Your task to perform on an android device: Go to Amazon Image 0: 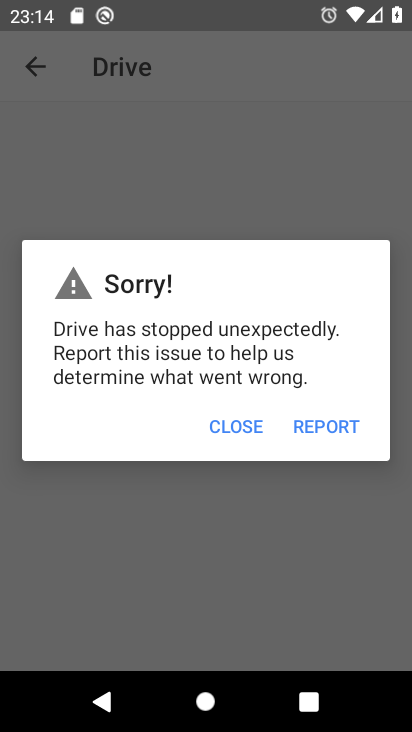
Step 0: press home button
Your task to perform on an android device: Go to Amazon Image 1: 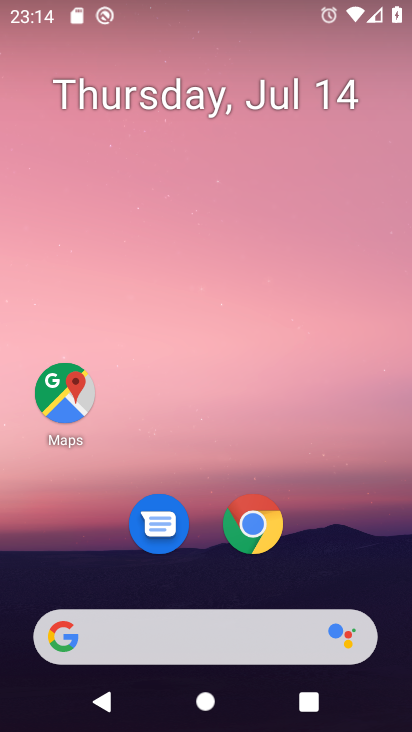
Step 1: click (270, 529)
Your task to perform on an android device: Go to Amazon Image 2: 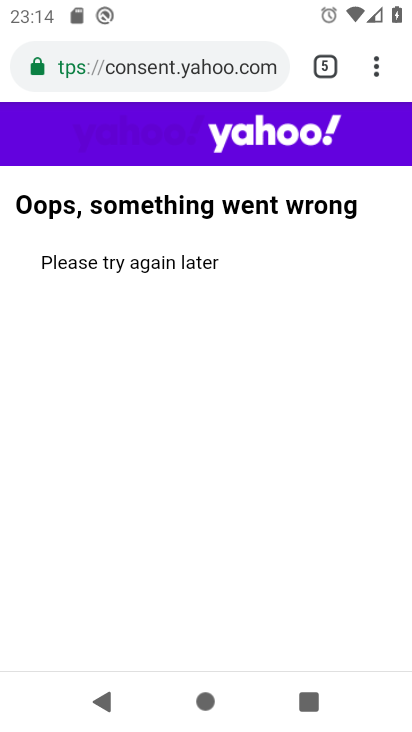
Step 2: click (370, 70)
Your task to perform on an android device: Go to Amazon Image 3: 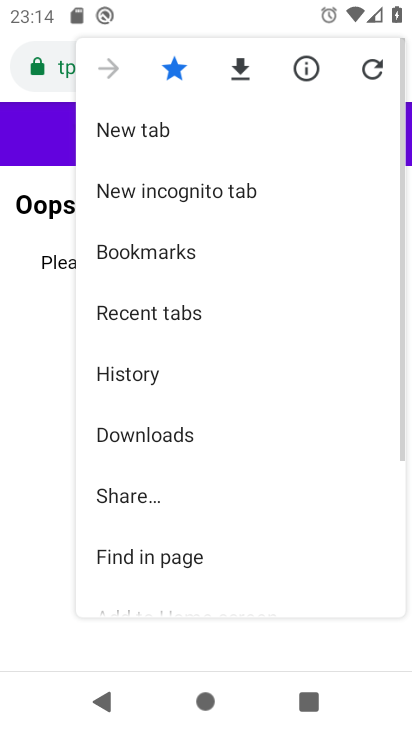
Step 3: click (271, 129)
Your task to perform on an android device: Go to Amazon Image 4: 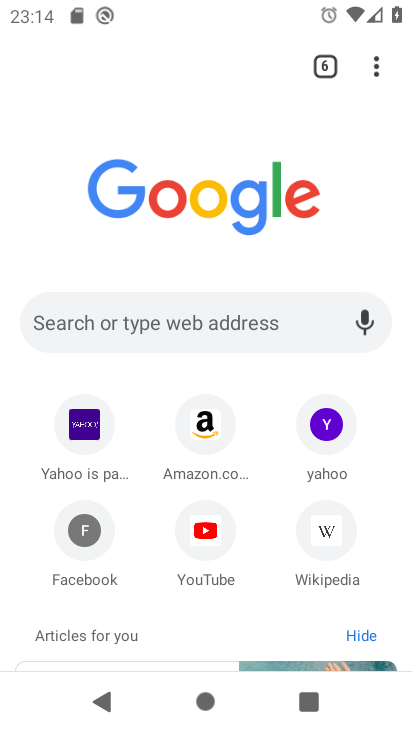
Step 4: click (215, 433)
Your task to perform on an android device: Go to Amazon Image 5: 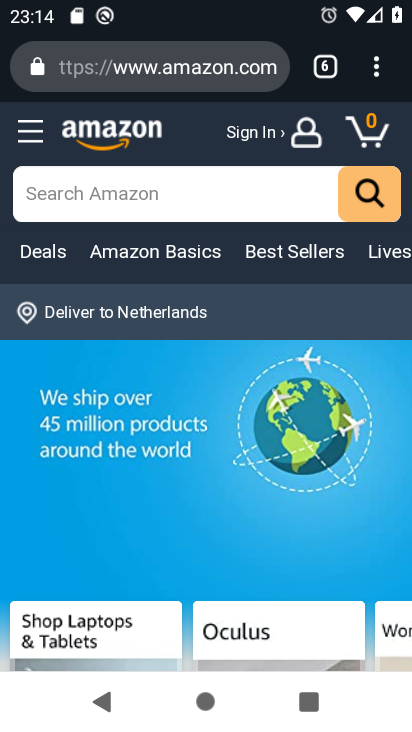
Step 5: task complete